Your task to perform on an android device: Go to battery settings Image 0: 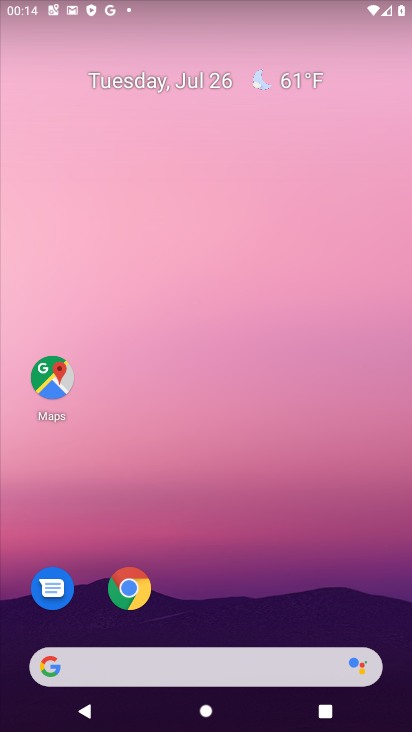
Step 0: press home button
Your task to perform on an android device: Go to battery settings Image 1: 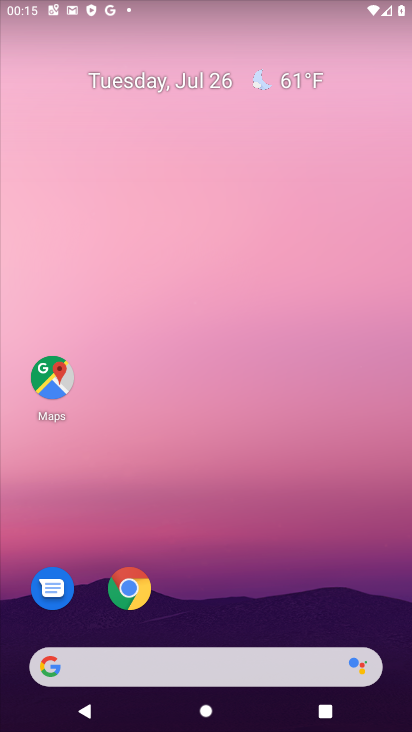
Step 1: drag from (212, 629) to (194, 47)
Your task to perform on an android device: Go to battery settings Image 2: 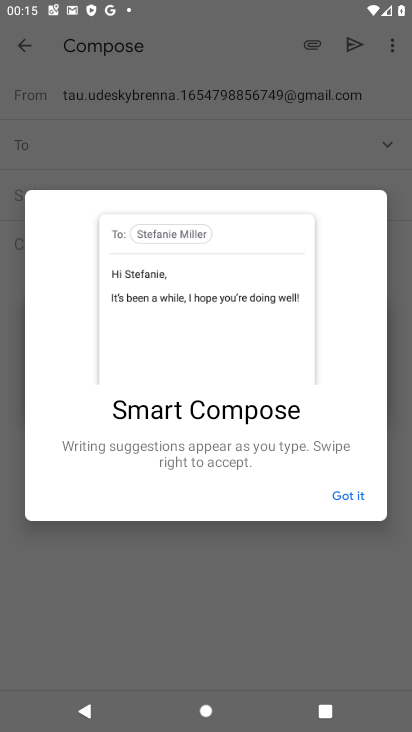
Step 2: press home button
Your task to perform on an android device: Go to battery settings Image 3: 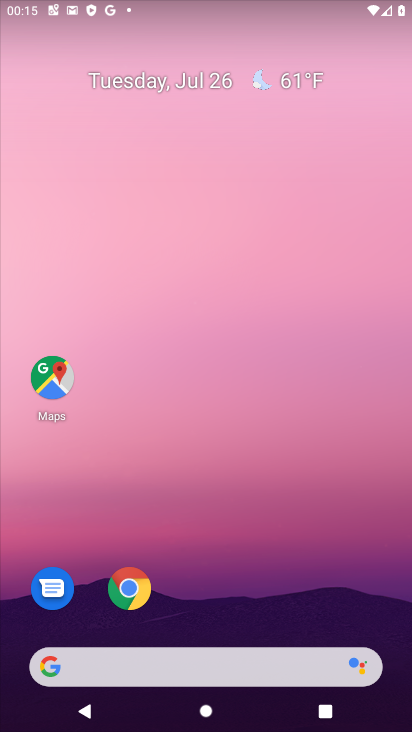
Step 3: drag from (226, 608) to (256, 40)
Your task to perform on an android device: Go to battery settings Image 4: 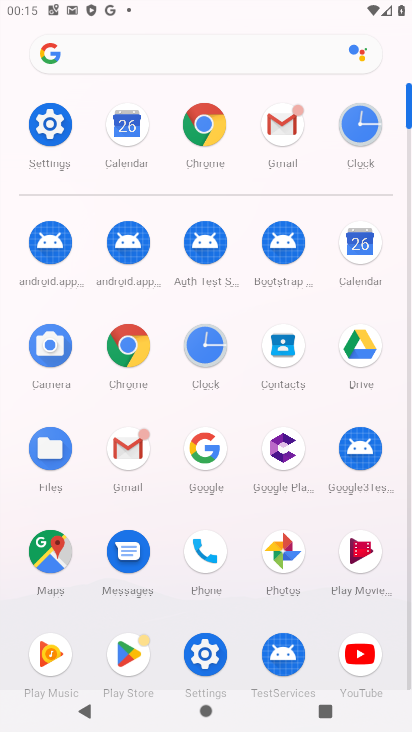
Step 4: click (47, 119)
Your task to perform on an android device: Go to battery settings Image 5: 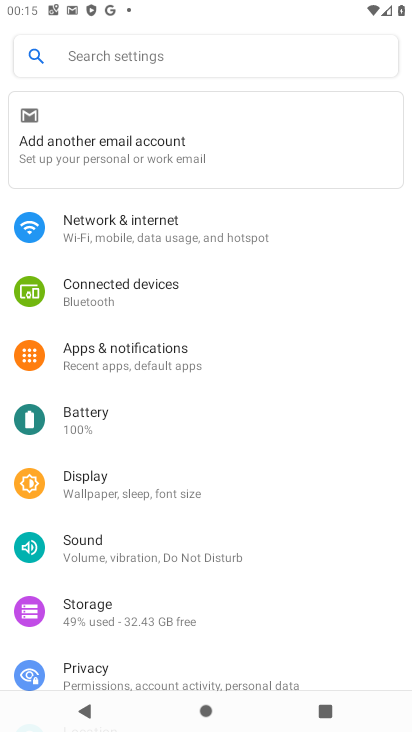
Step 5: click (138, 417)
Your task to perform on an android device: Go to battery settings Image 6: 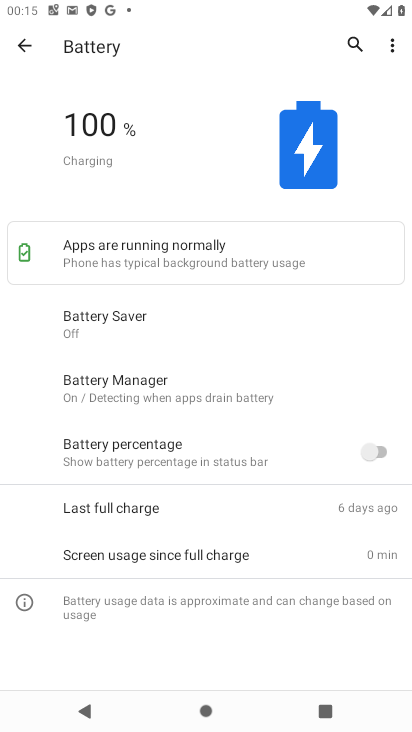
Step 6: task complete